Your task to perform on an android device: Open Chrome and go to settings Image 0: 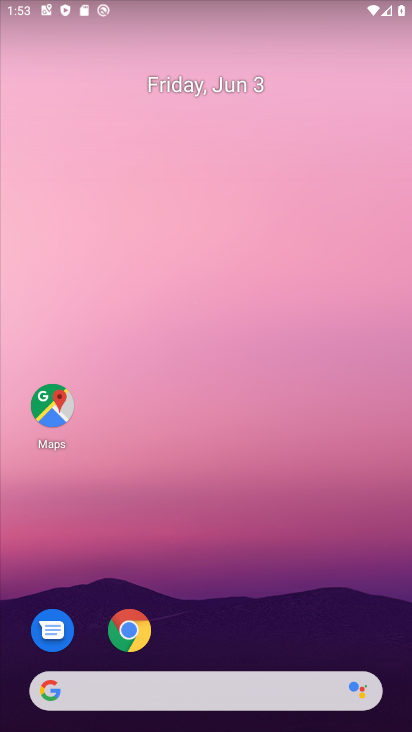
Step 0: click (198, 89)
Your task to perform on an android device: Open Chrome and go to settings Image 1: 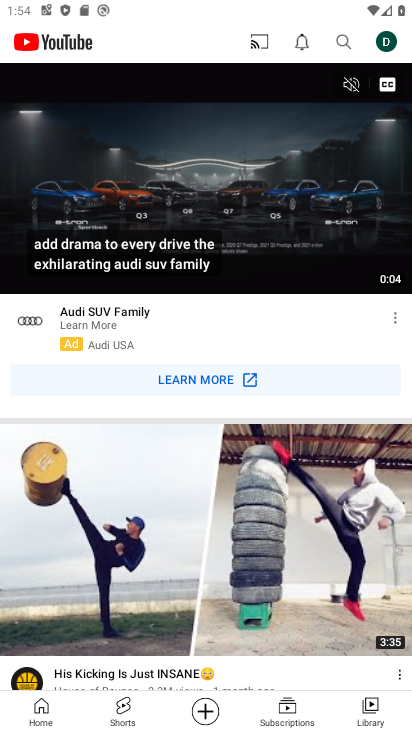
Step 1: press home button
Your task to perform on an android device: Open Chrome and go to settings Image 2: 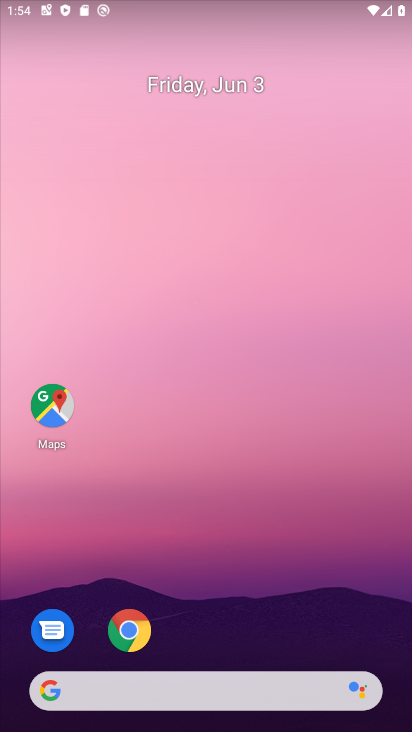
Step 2: click (132, 630)
Your task to perform on an android device: Open Chrome and go to settings Image 3: 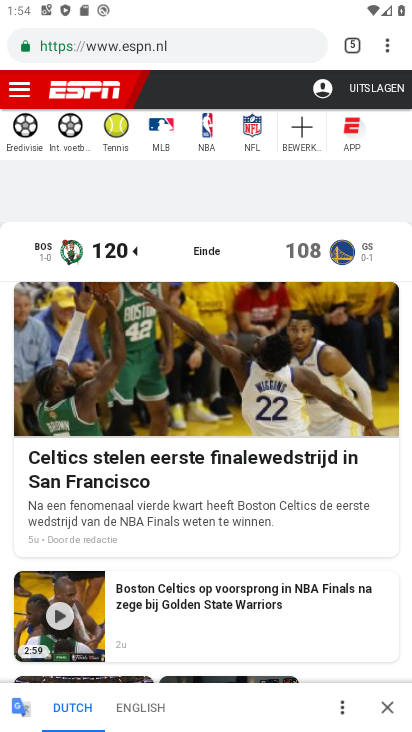
Step 3: click (388, 50)
Your task to perform on an android device: Open Chrome and go to settings Image 4: 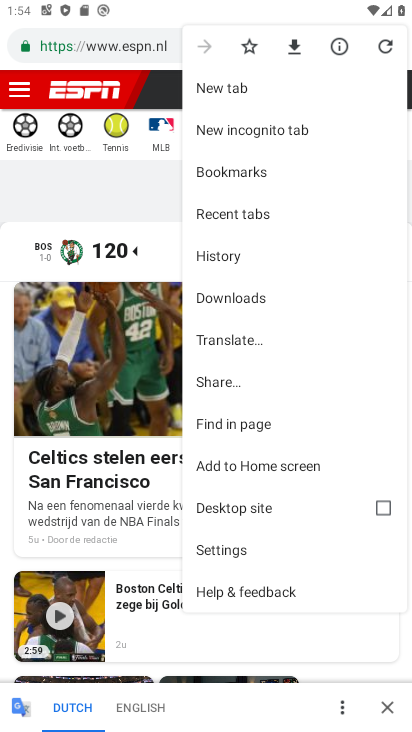
Step 4: click (217, 548)
Your task to perform on an android device: Open Chrome and go to settings Image 5: 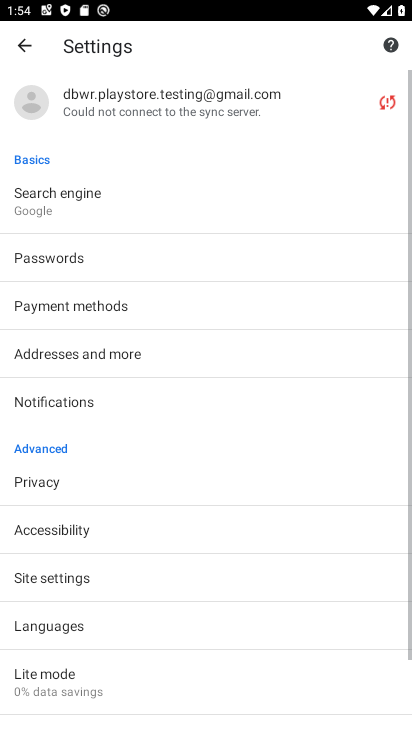
Step 5: task complete